Your task to perform on an android device: Search for a nightstand on IKEA. Image 0: 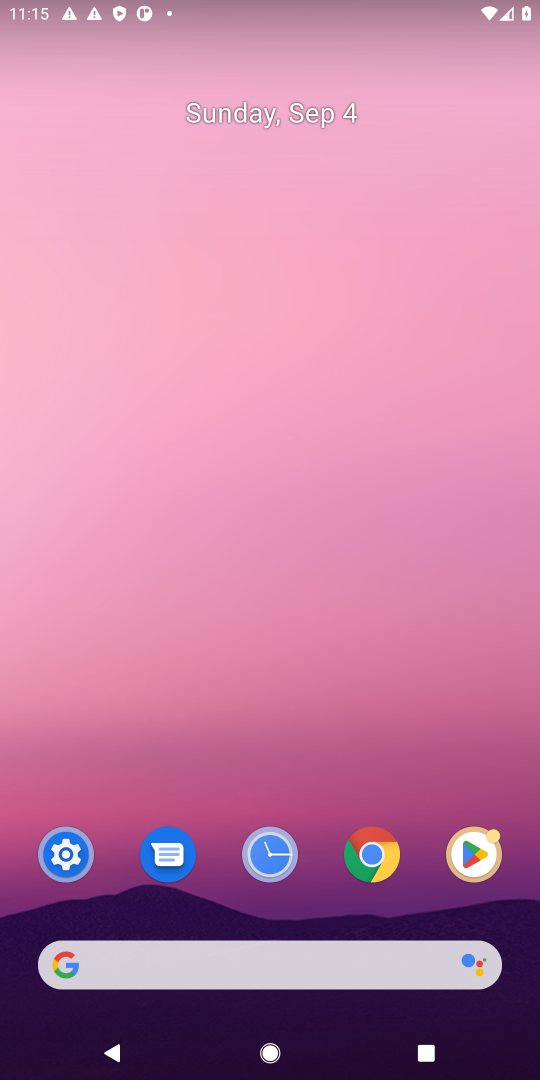
Step 0: press home button
Your task to perform on an android device: Search for a nightstand on IKEA. Image 1: 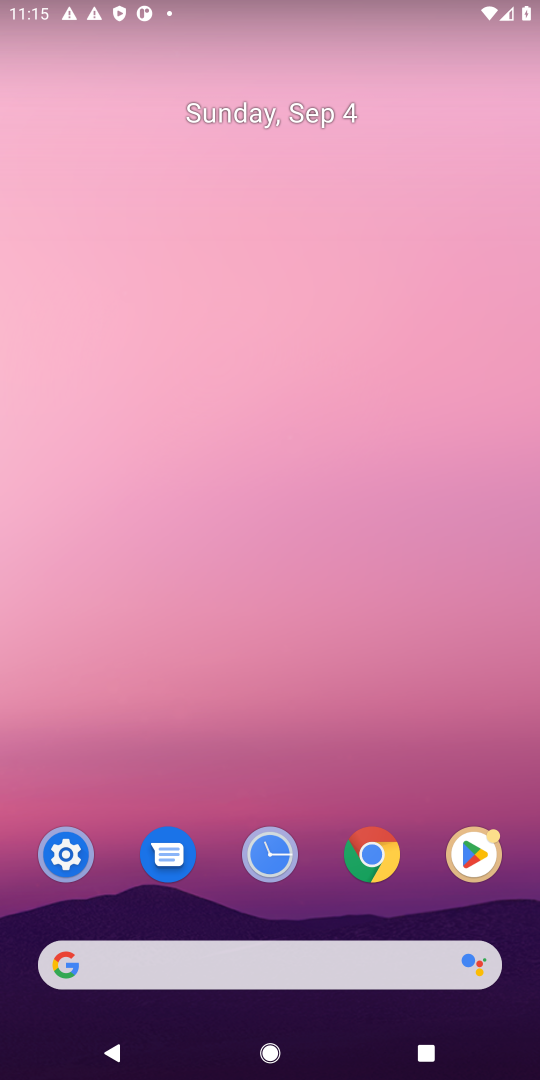
Step 1: click (316, 959)
Your task to perform on an android device: Search for a nightstand on IKEA. Image 2: 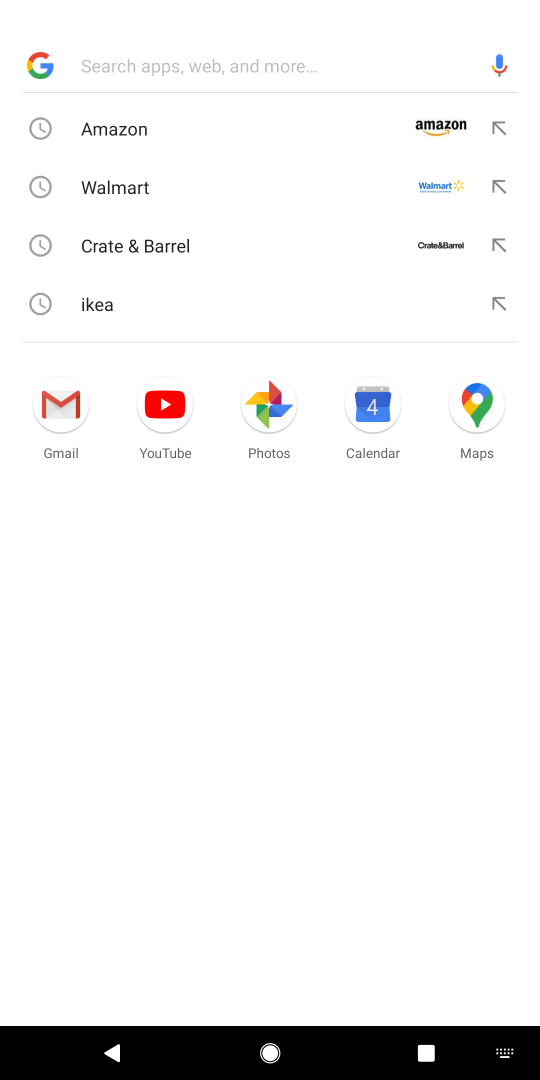
Step 2: press enter
Your task to perform on an android device: Search for a nightstand on IKEA. Image 3: 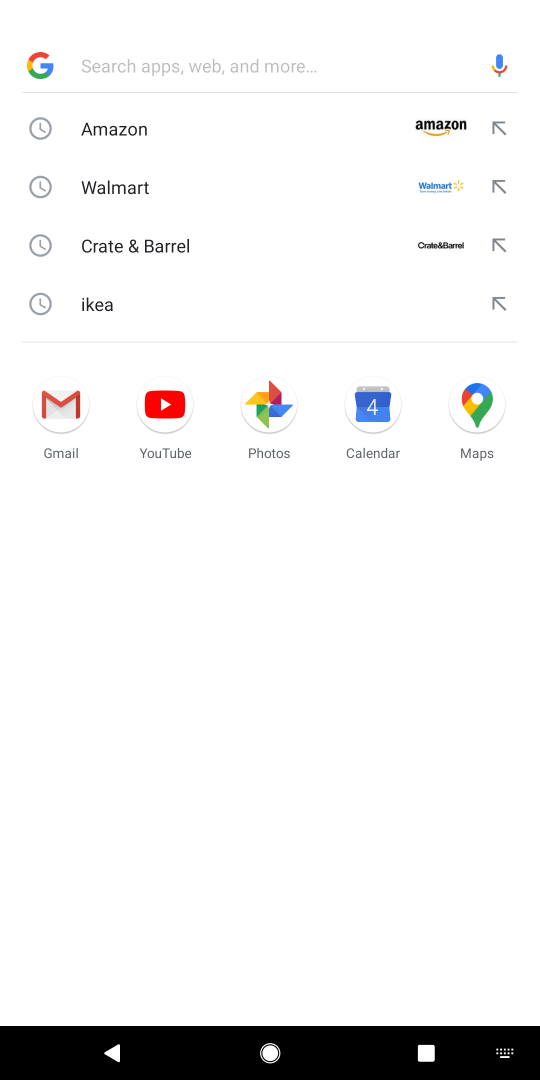
Step 3: type "ikea"
Your task to perform on an android device: Search for a nightstand on IKEA. Image 4: 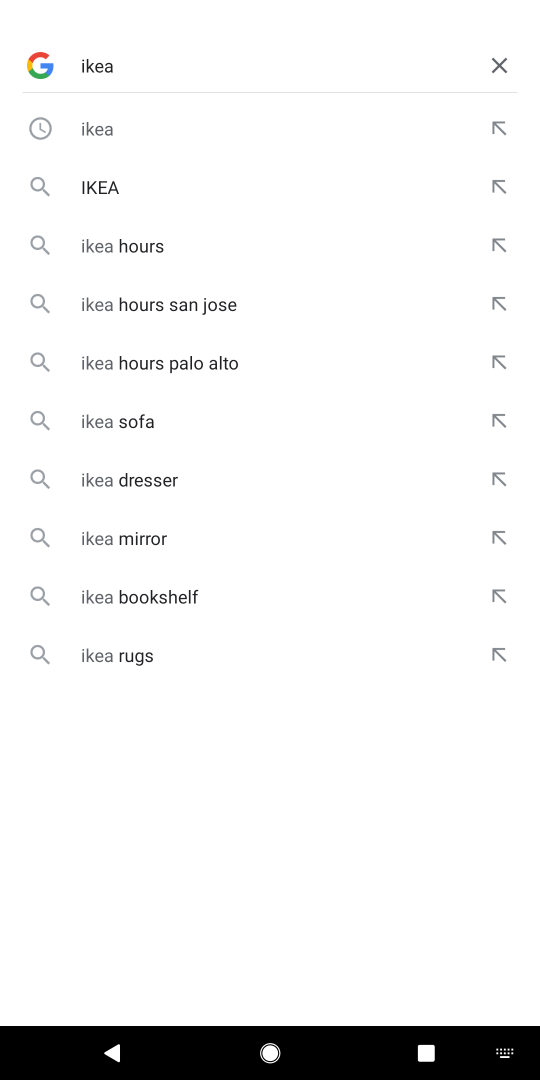
Step 4: click (108, 189)
Your task to perform on an android device: Search for a nightstand on IKEA. Image 5: 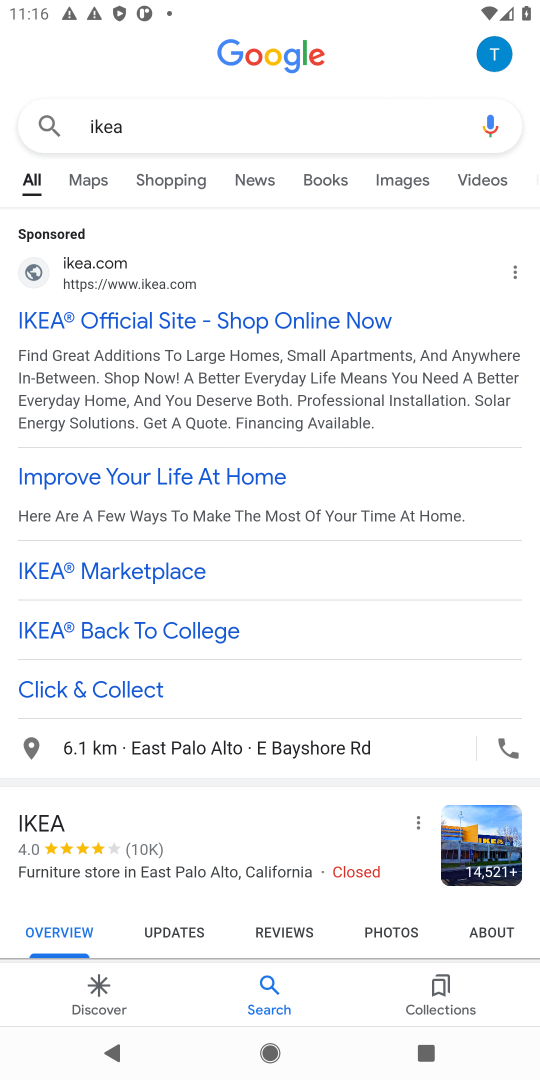
Step 5: click (197, 321)
Your task to perform on an android device: Search for a nightstand on IKEA. Image 6: 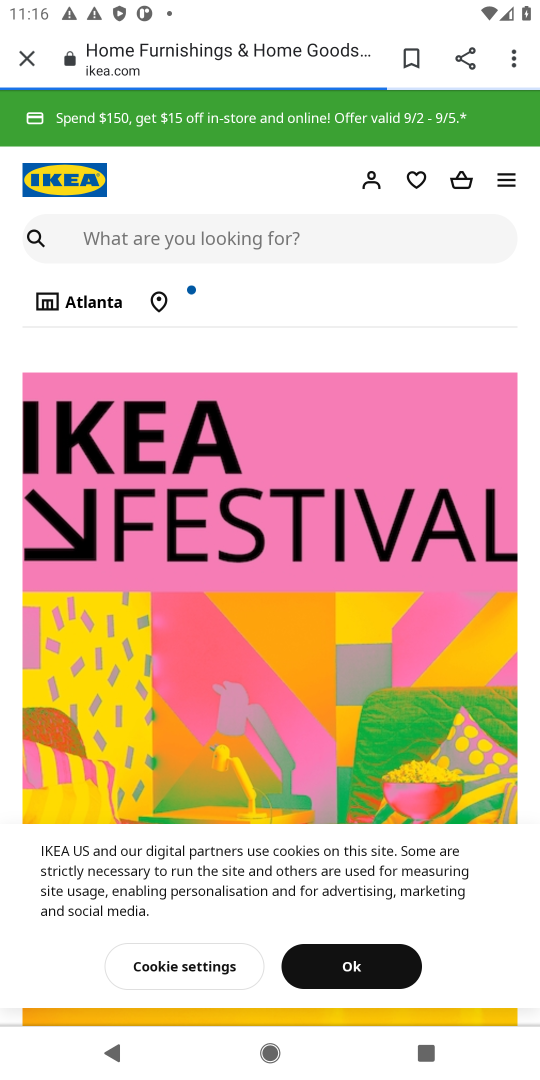
Step 6: click (149, 238)
Your task to perform on an android device: Search for a nightstand on IKEA. Image 7: 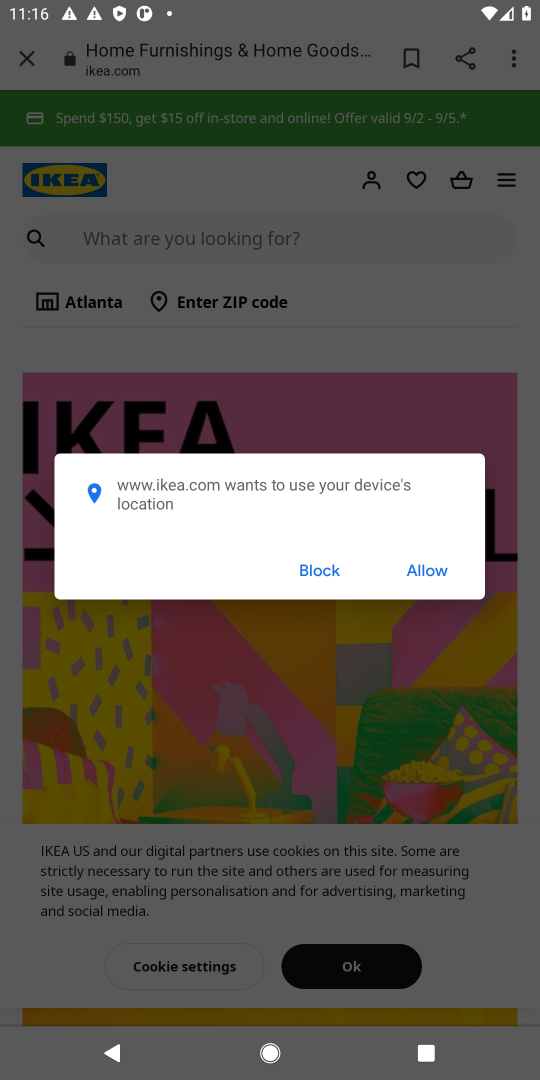
Step 7: click (337, 565)
Your task to perform on an android device: Search for a nightstand on IKEA. Image 8: 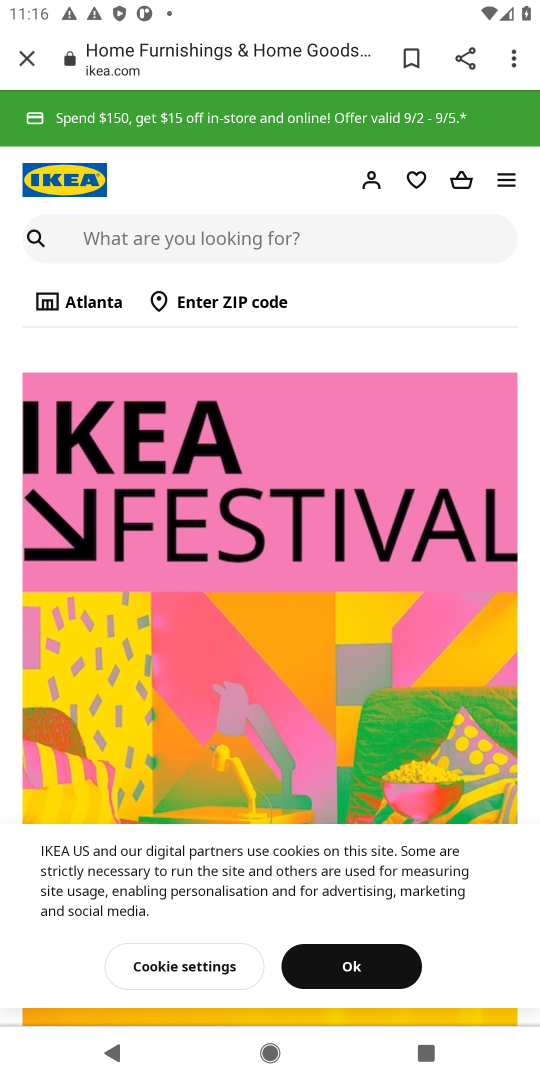
Step 8: click (244, 239)
Your task to perform on an android device: Search for a nightstand on IKEA. Image 9: 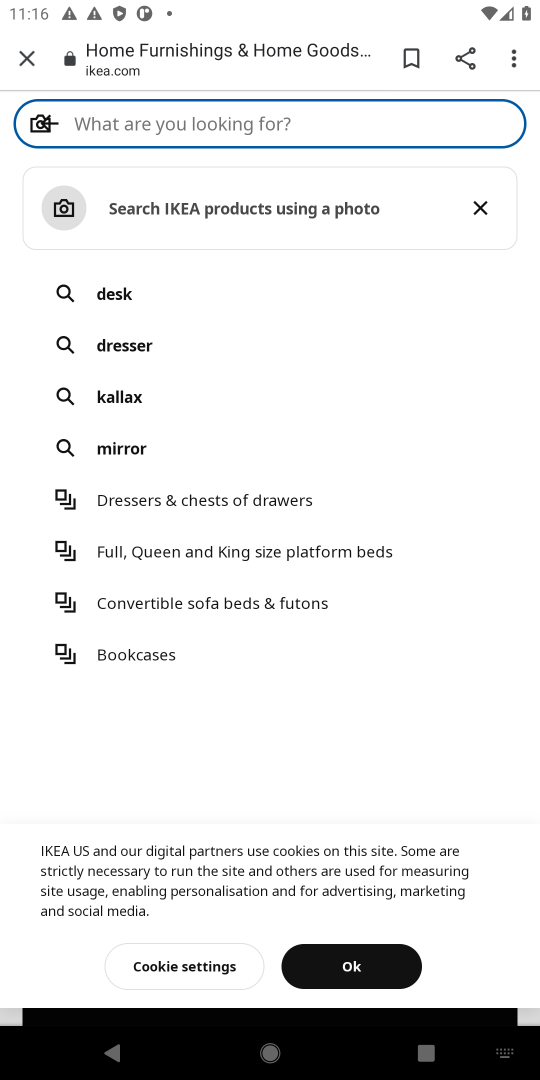
Step 9: press enter
Your task to perform on an android device: Search for a nightstand on IKEA. Image 10: 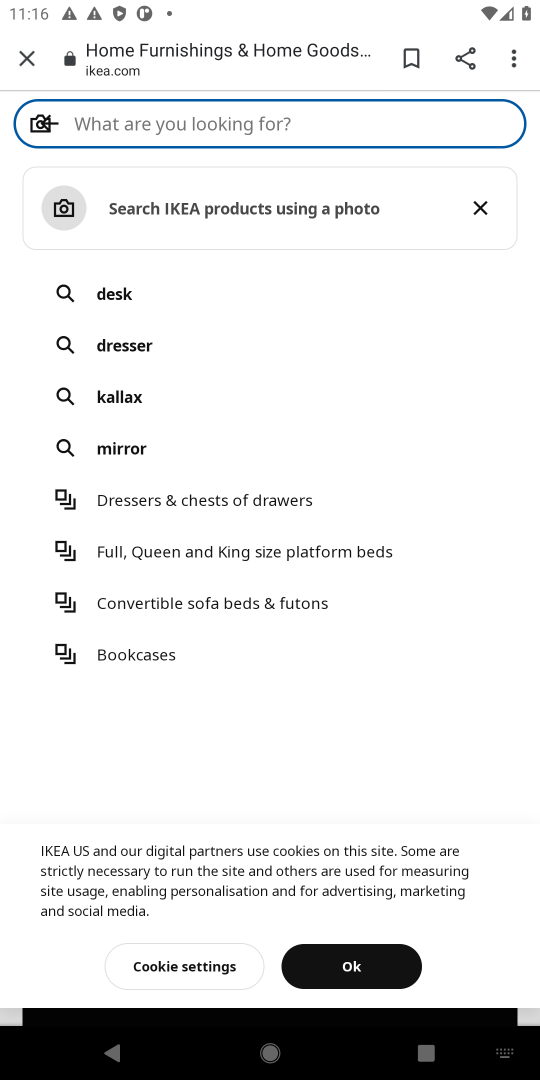
Step 10: type "nightstand"
Your task to perform on an android device: Search for a nightstand on IKEA. Image 11: 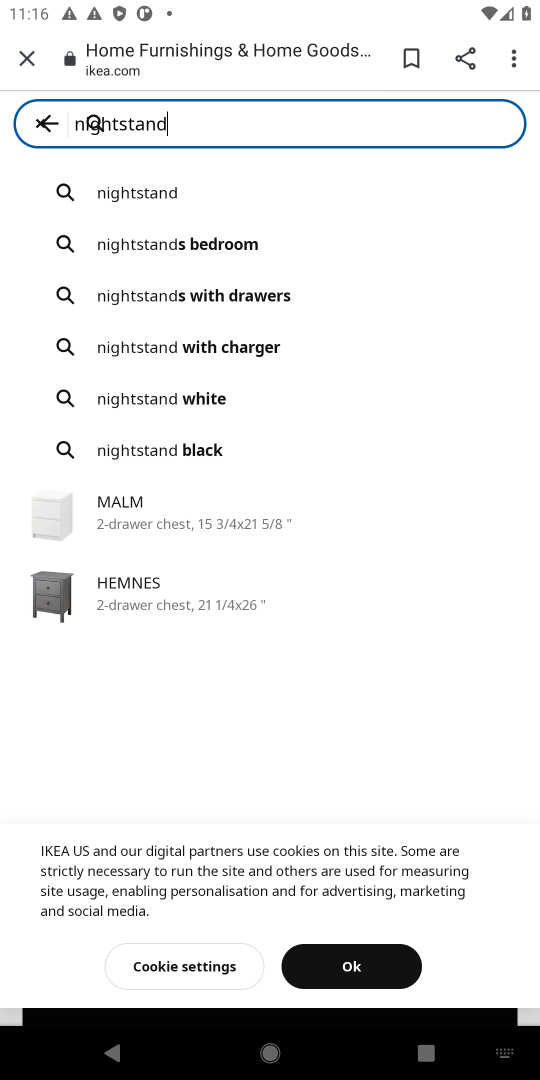
Step 11: click (150, 192)
Your task to perform on an android device: Search for a nightstand on IKEA. Image 12: 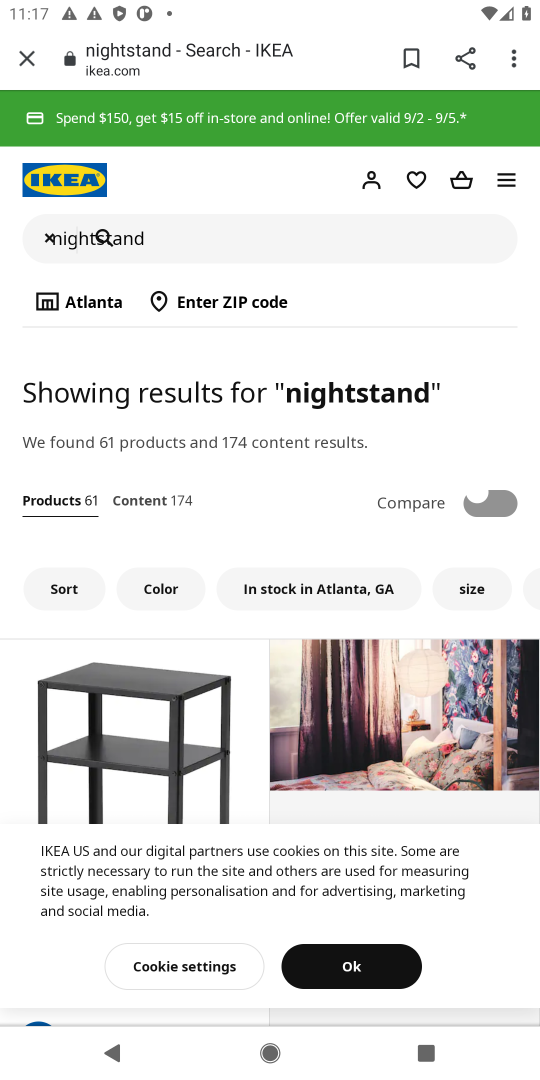
Step 12: task complete